Your task to perform on an android device: Go to Android settings Image 0: 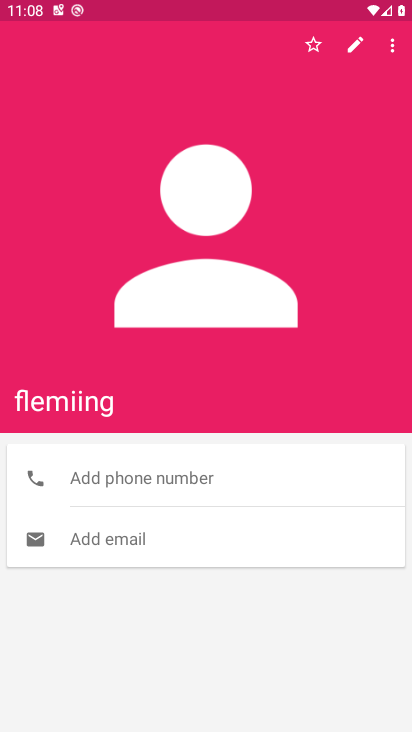
Step 0: press home button
Your task to perform on an android device: Go to Android settings Image 1: 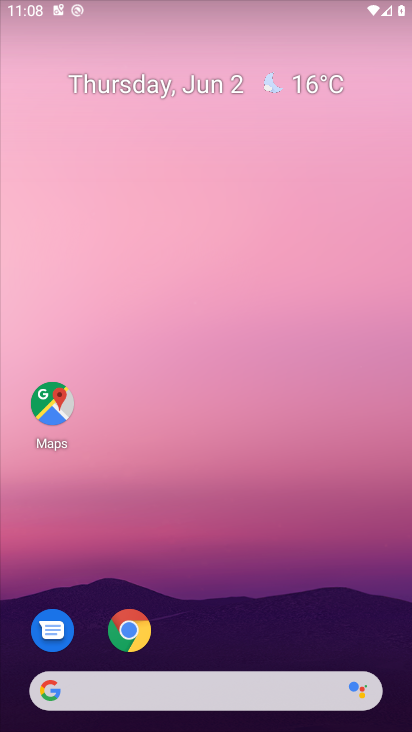
Step 1: drag from (227, 615) to (179, 26)
Your task to perform on an android device: Go to Android settings Image 2: 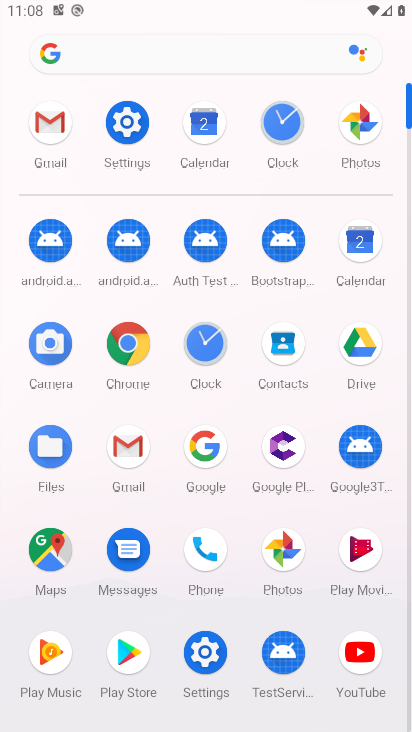
Step 2: click (134, 156)
Your task to perform on an android device: Go to Android settings Image 3: 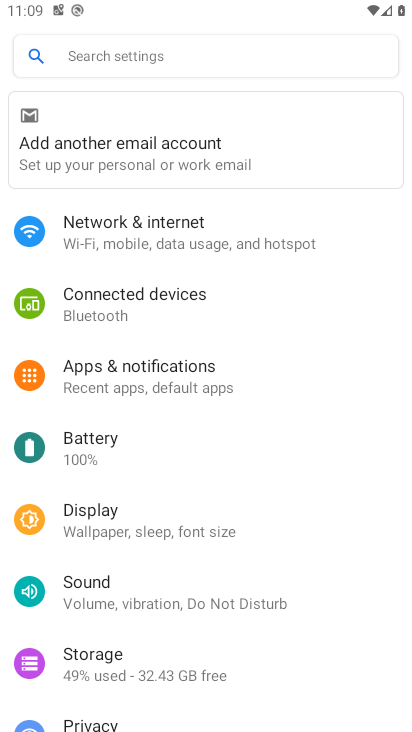
Step 3: drag from (156, 604) to (198, 78)
Your task to perform on an android device: Go to Android settings Image 4: 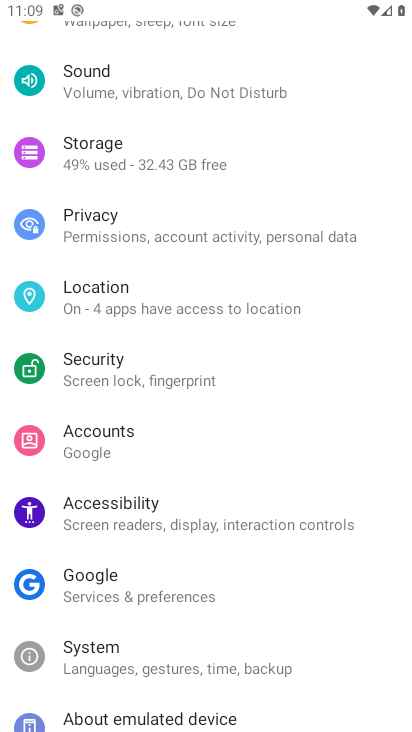
Step 4: drag from (193, 613) to (237, 228)
Your task to perform on an android device: Go to Android settings Image 5: 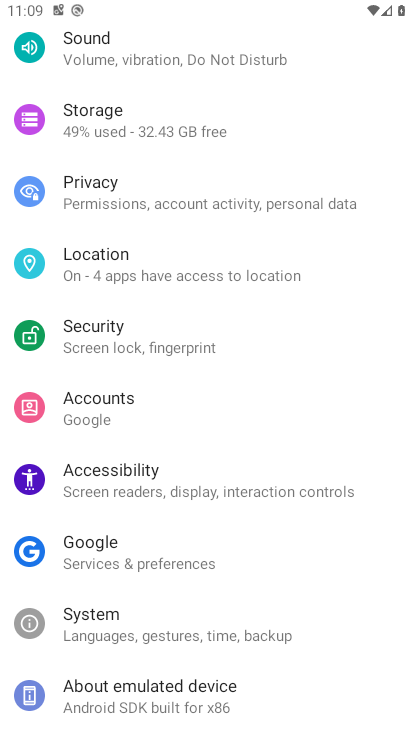
Step 5: click (165, 697)
Your task to perform on an android device: Go to Android settings Image 6: 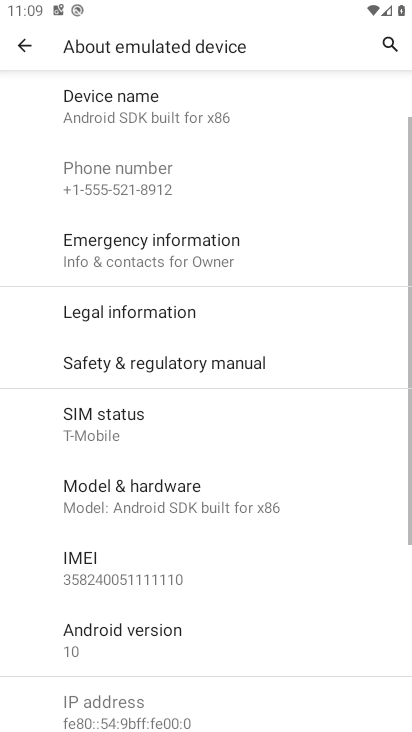
Step 6: click (155, 646)
Your task to perform on an android device: Go to Android settings Image 7: 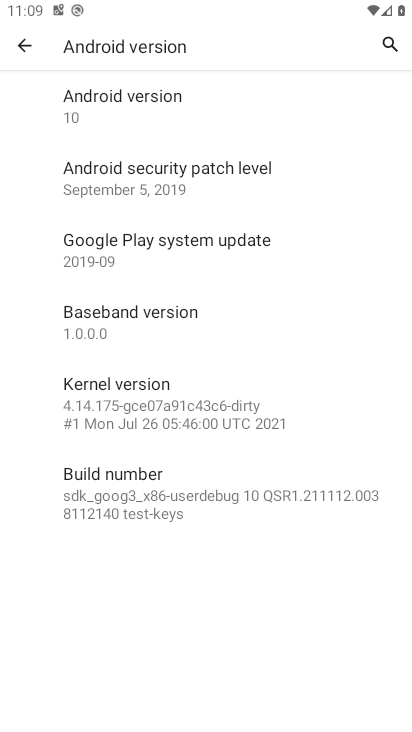
Step 7: task complete